Your task to perform on an android device: Set the phone to "Do not disturb". Image 0: 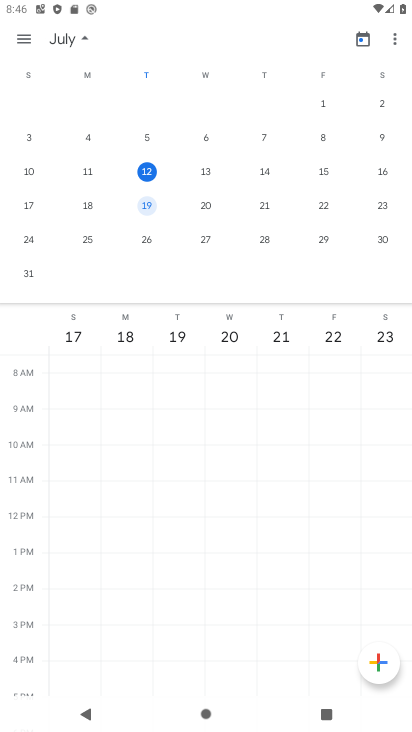
Step 0: drag from (189, 5) to (213, 546)
Your task to perform on an android device: Set the phone to "Do not disturb". Image 1: 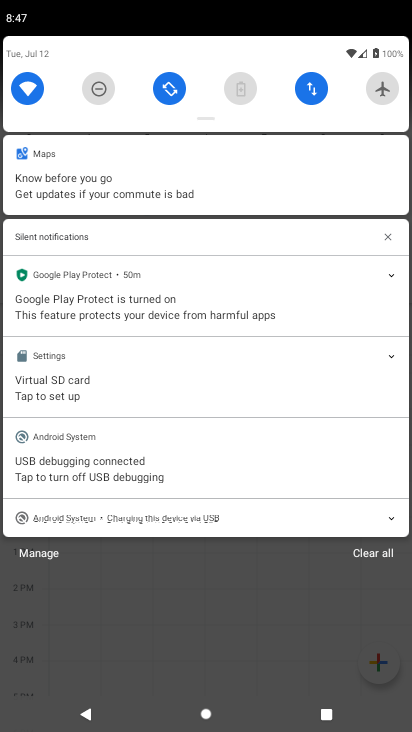
Step 1: click (102, 88)
Your task to perform on an android device: Set the phone to "Do not disturb". Image 2: 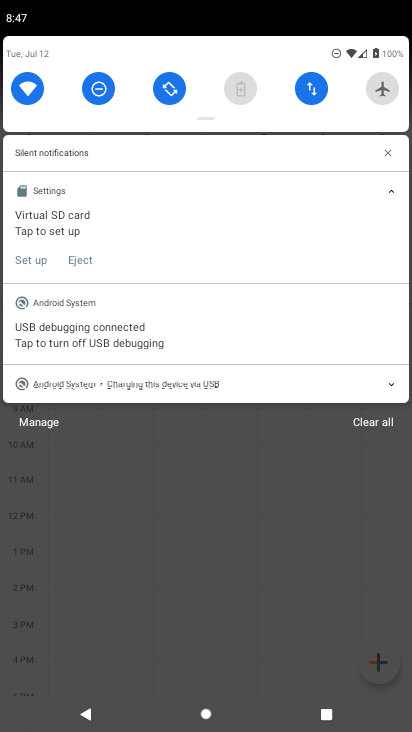
Step 2: task complete